Your task to perform on an android device: toggle priority inbox in the gmail app Image 0: 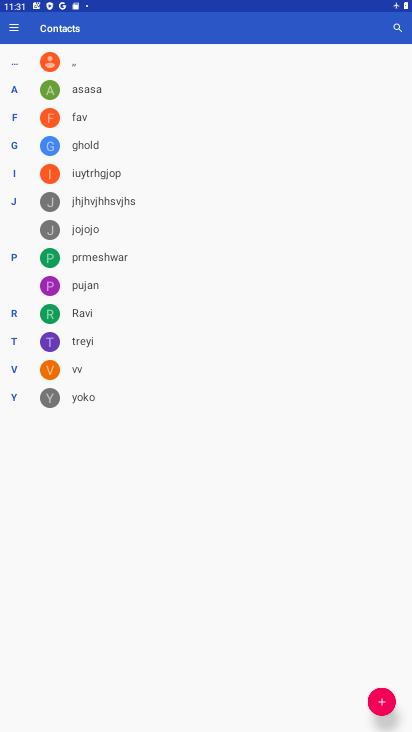
Step 0: press home button
Your task to perform on an android device: toggle priority inbox in the gmail app Image 1: 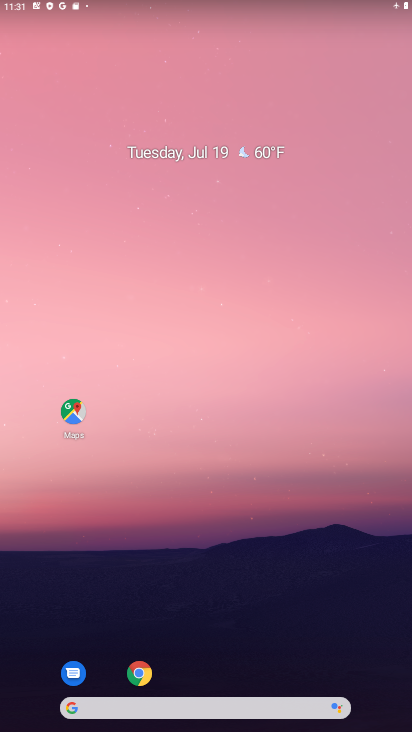
Step 1: drag from (373, 673) to (302, 167)
Your task to perform on an android device: toggle priority inbox in the gmail app Image 2: 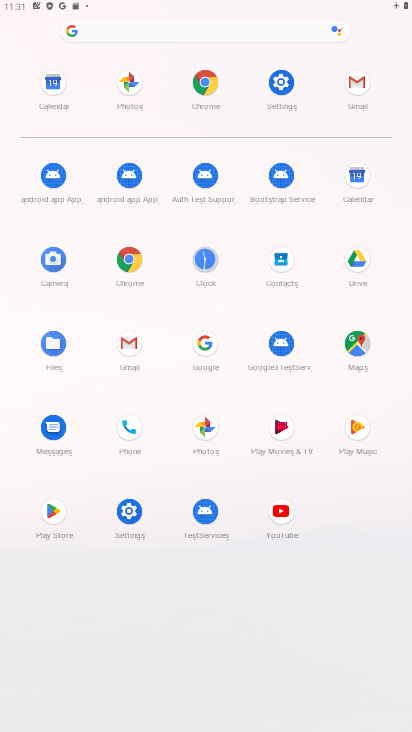
Step 2: click (127, 344)
Your task to perform on an android device: toggle priority inbox in the gmail app Image 3: 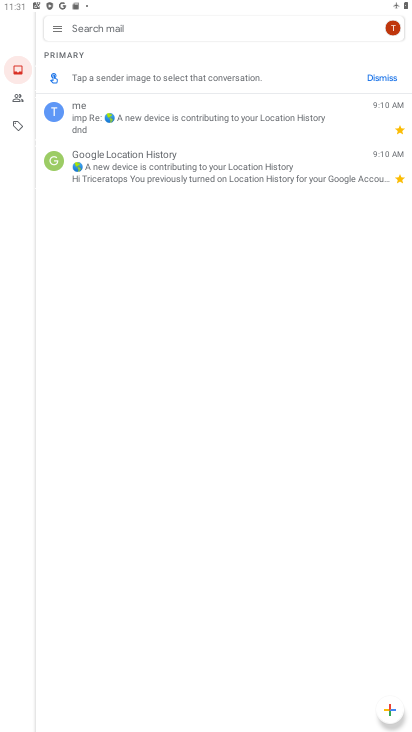
Step 3: click (57, 32)
Your task to perform on an android device: toggle priority inbox in the gmail app Image 4: 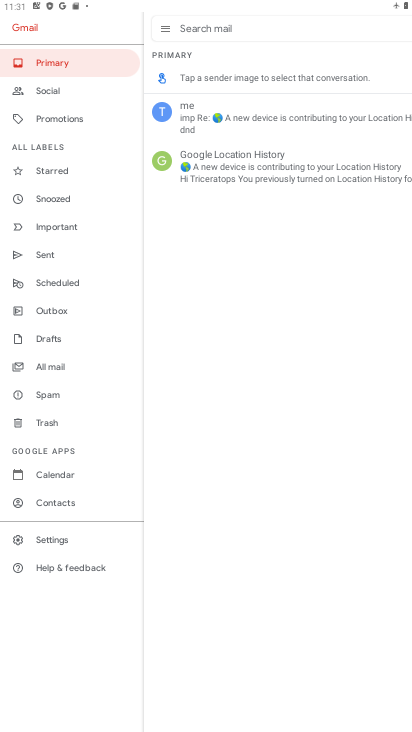
Step 4: click (56, 541)
Your task to perform on an android device: toggle priority inbox in the gmail app Image 5: 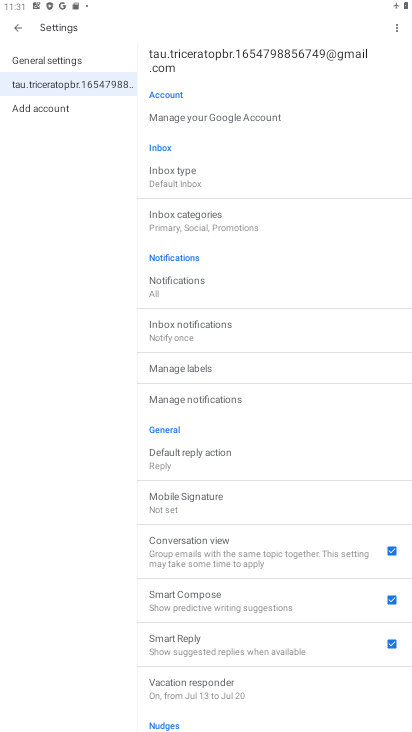
Step 5: click (177, 184)
Your task to perform on an android device: toggle priority inbox in the gmail app Image 6: 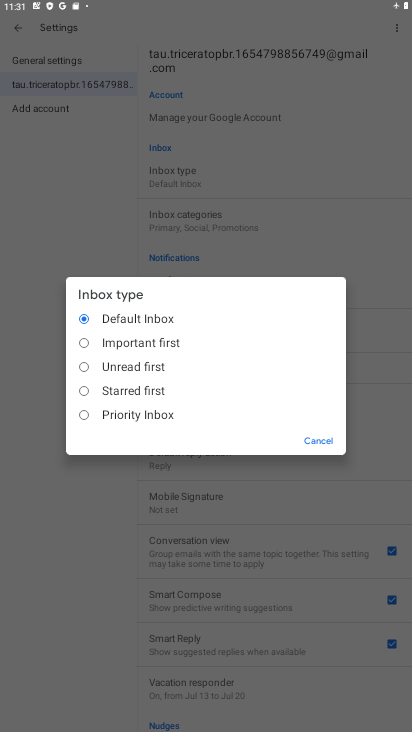
Step 6: click (80, 416)
Your task to perform on an android device: toggle priority inbox in the gmail app Image 7: 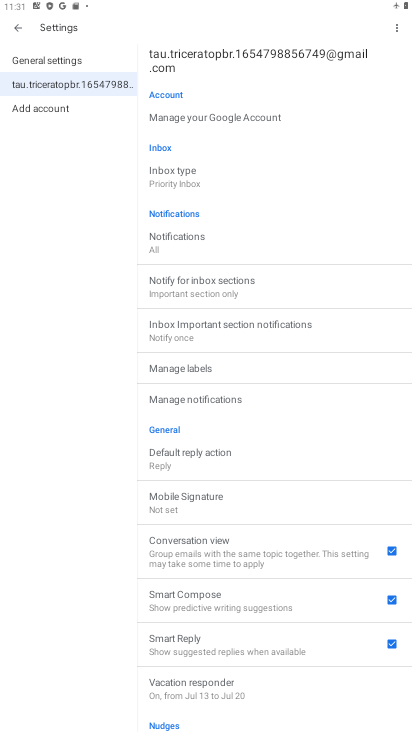
Step 7: task complete